Your task to perform on an android device: What's the weather today? Image 0: 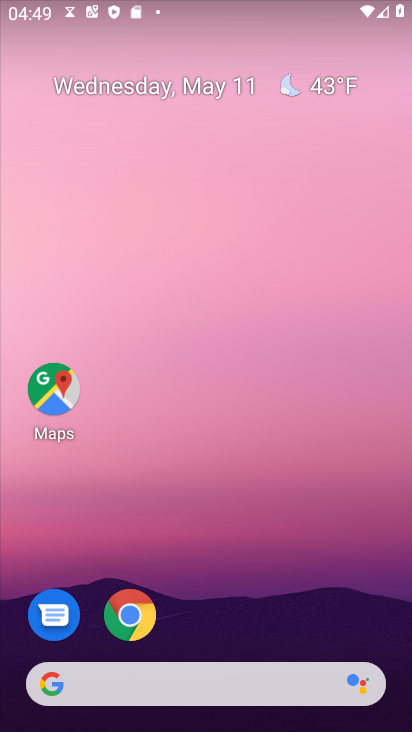
Step 0: drag from (259, 541) to (264, 2)
Your task to perform on an android device: What's the weather today? Image 1: 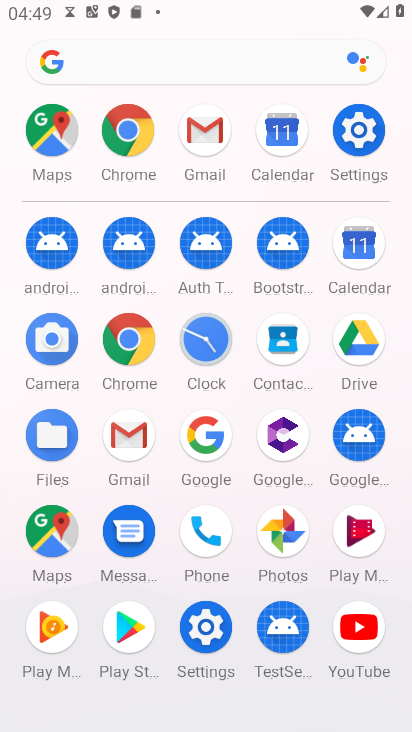
Step 1: drag from (17, 487) to (52, 209)
Your task to perform on an android device: What's the weather today? Image 2: 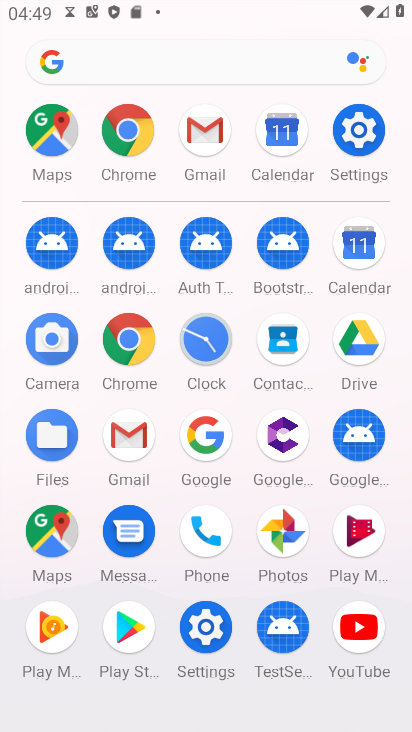
Step 2: drag from (16, 559) to (25, 183)
Your task to perform on an android device: What's the weather today? Image 3: 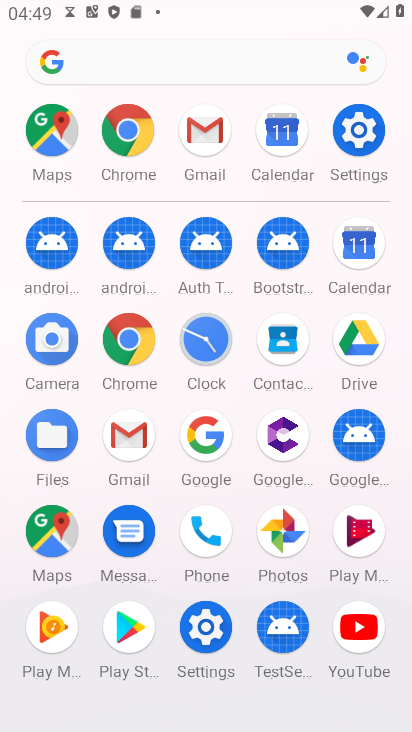
Step 3: click (126, 335)
Your task to perform on an android device: What's the weather today? Image 4: 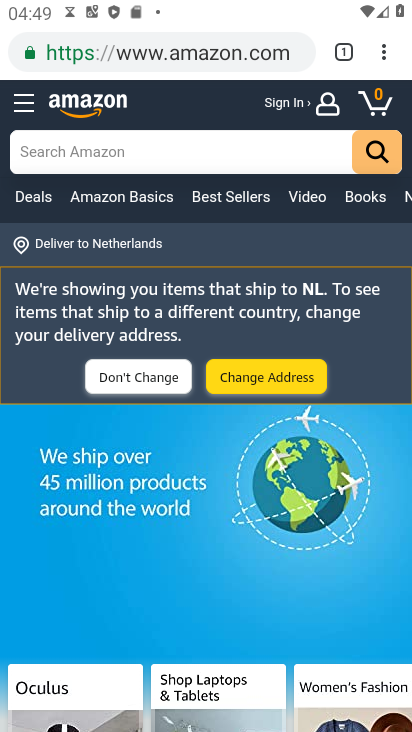
Step 4: click (216, 36)
Your task to perform on an android device: What's the weather today? Image 5: 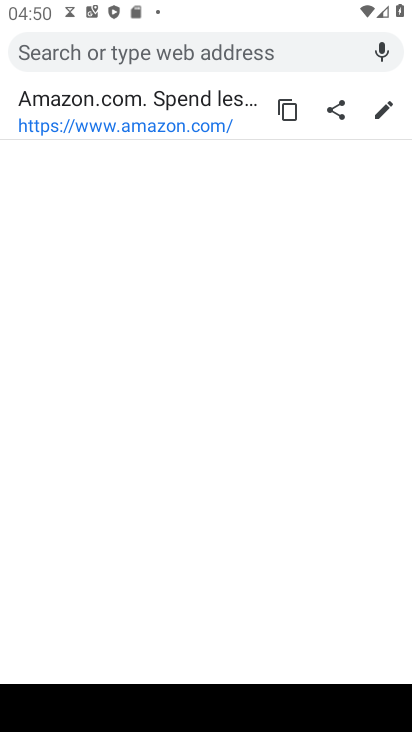
Step 5: type "What's the weather today?"
Your task to perform on an android device: What's the weather today? Image 6: 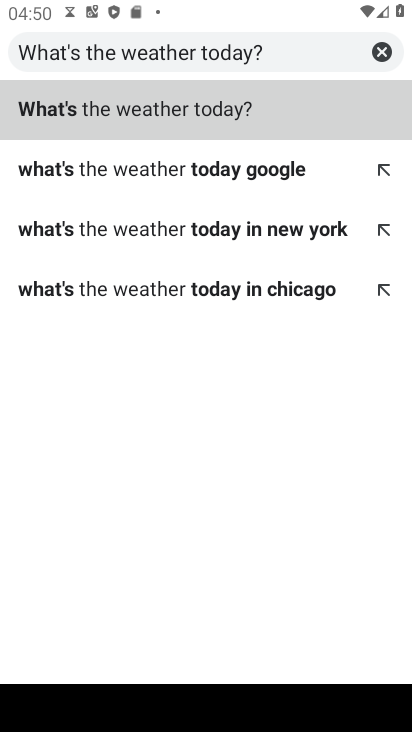
Step 6: click (165, 110)
Your task to perform on an android device: What's the weather today? Image 7: 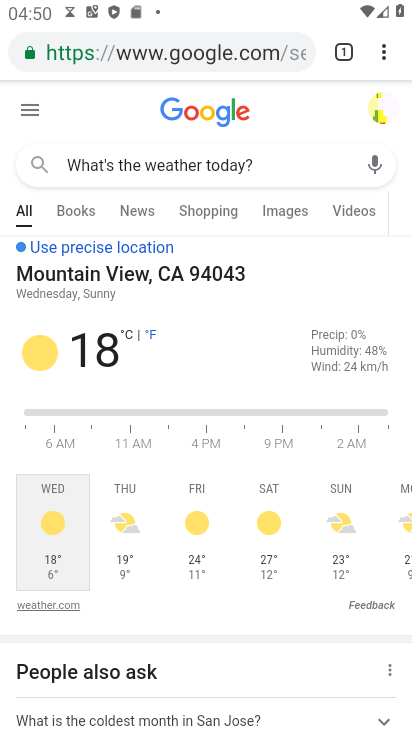
Step 7: task complete